Your task to perform on an android device: change the clock display to show seconds Image 0: 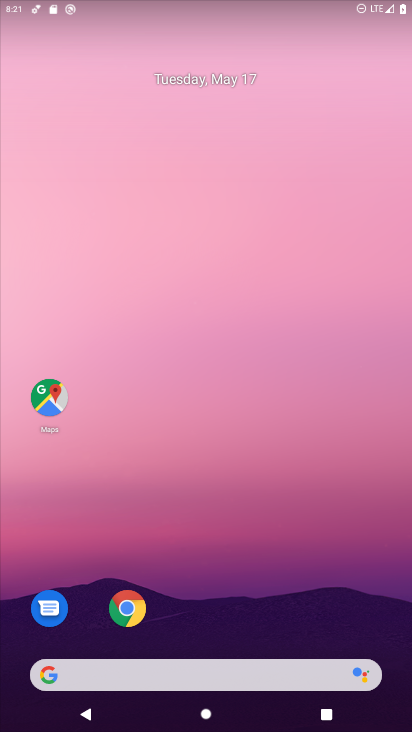
Step 0: drag from (192, 626) to (265, 1)
Your task to perform on an android device: change the clock display to show seconds Image 1: 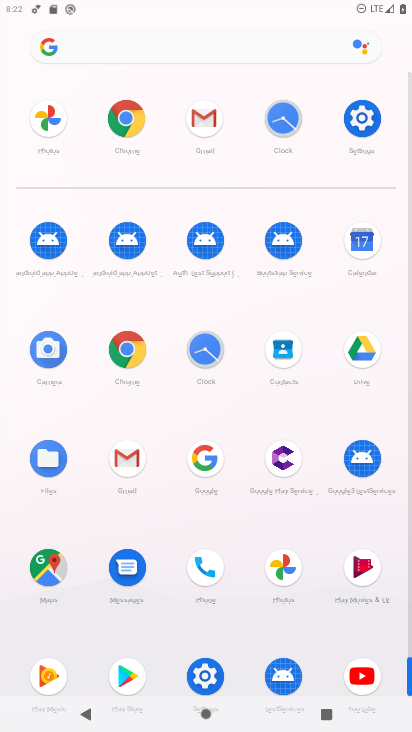
Step 1: click (212, 365)
Your task to perform on an android device: change the clock display to show seconds Image 2: 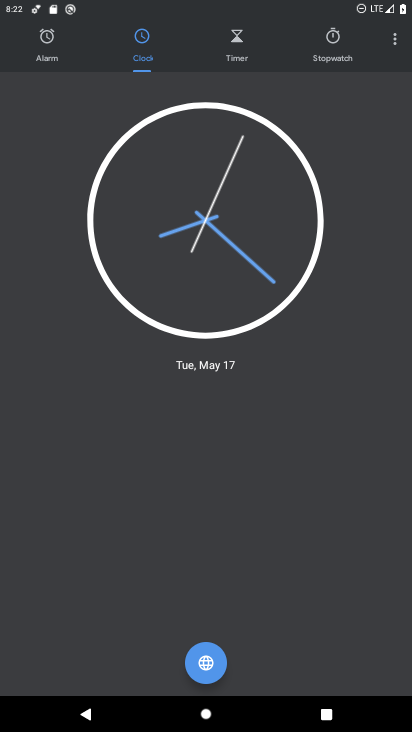
Step 2: click (385, 46)
Your task to perform on an android device: change the clock display to show seconds Image 3: 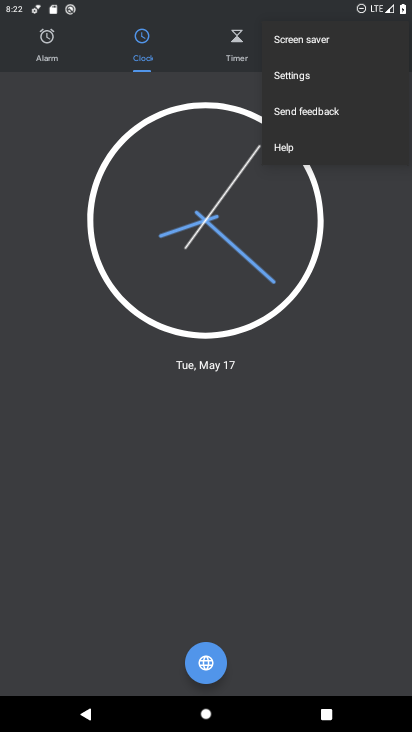
Step 3: click (288, 78)
Your task to perform on an android device: change the clock display to show seconds Image 4: 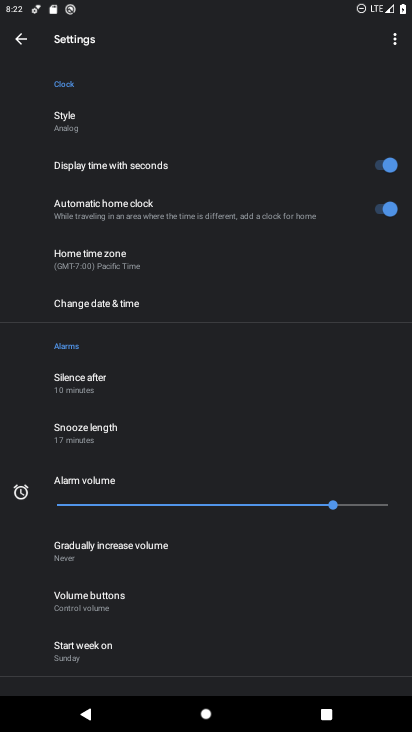
Step 4: click (105, 115)
Your task to perform on an android device: change the clock display to show seconds Image 5: 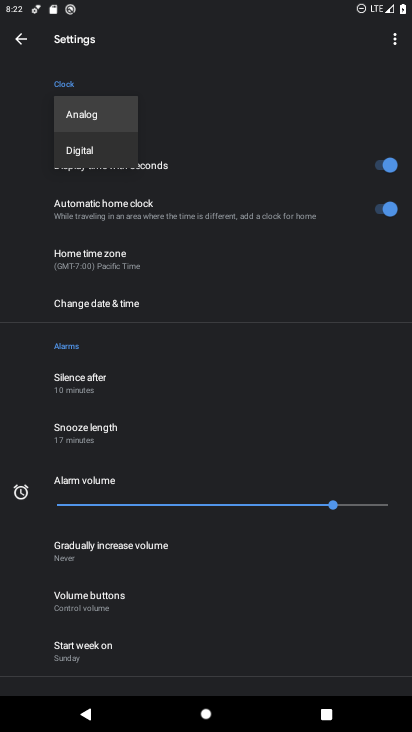
Step 5: click (118, 149)
Your task to perform on an android device: change the clock display to show seconds Image 6: 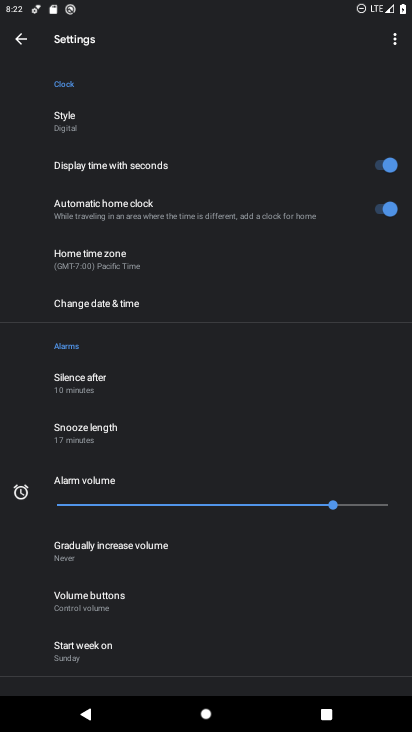
Step 6: task complete